Your task to perform on an android device: Open Maps and search for coffee Image 0: 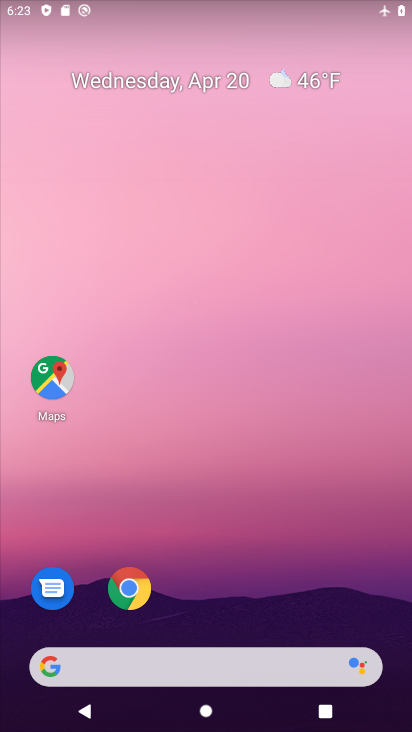
Step 0: drag from (316, 603) to (336, 729)
Your task to perform on an android device: Open Maps and search for coffee Image 1: 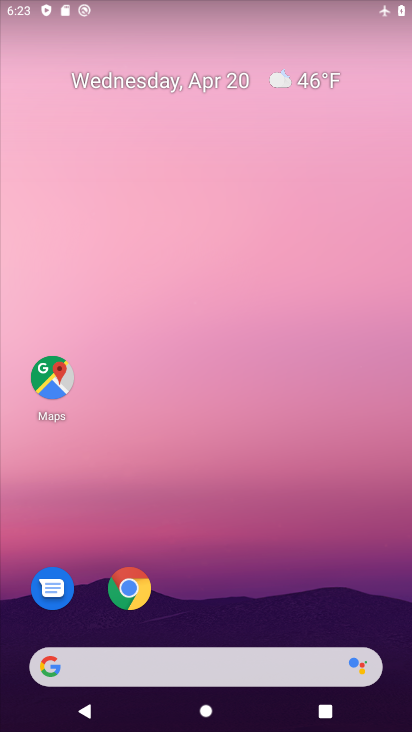
Step 1: click (31, 370)
Your task to perform on an android device: Open Maps and search for coffee Image 2: 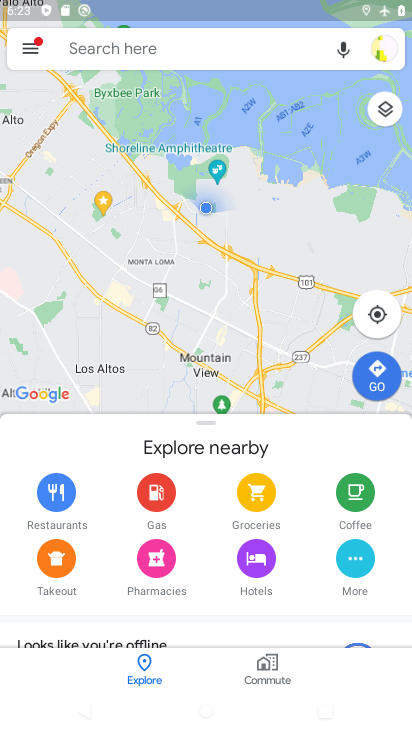
Step 2: drag from (388, 724) to (310, 718)
Your task to perform on an android device: Open Maps and search for coffee Image 3: 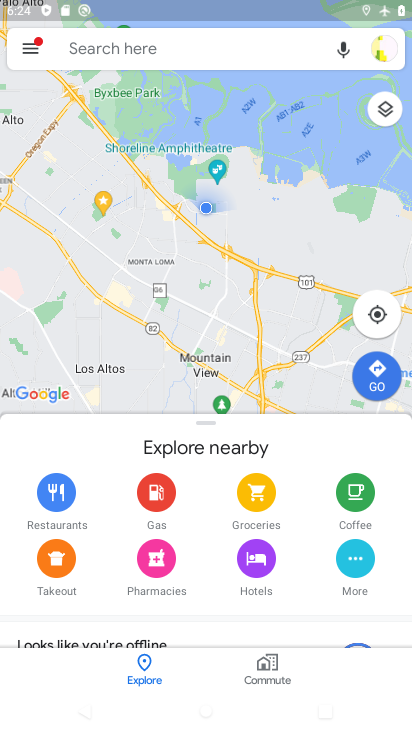
Step 3: type "coffee"
Your task to perform on an android device: Open Maps and search for coffee Image 4: 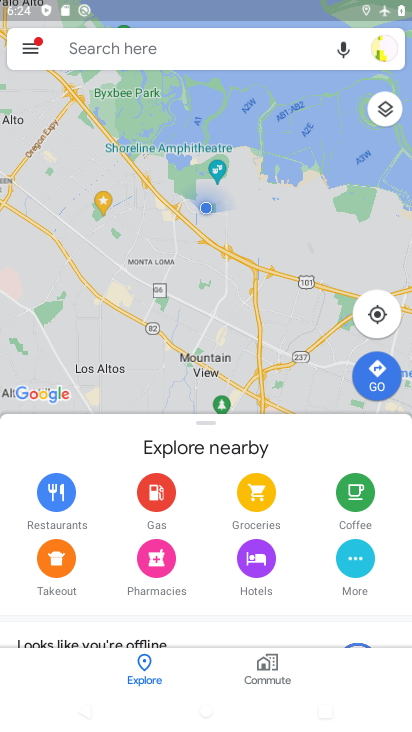
Step 4: click (160, 50)
Your task to perform on an android device: Open Maps and search for coffee Image 5: 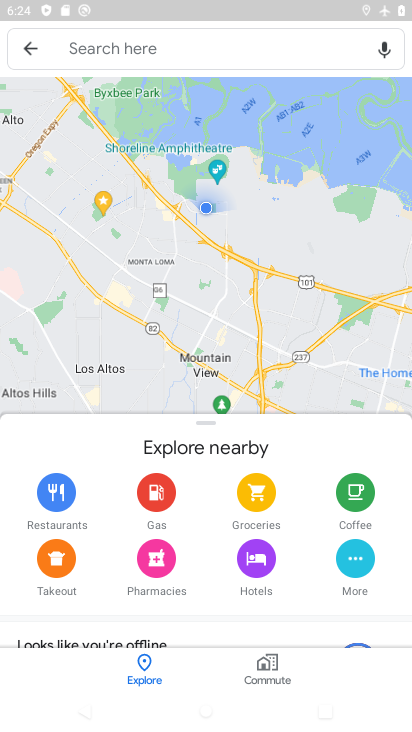
Step 5: click (160, 50)
Your task to perform on an android device: Open Maps and search for coffee Image 6: 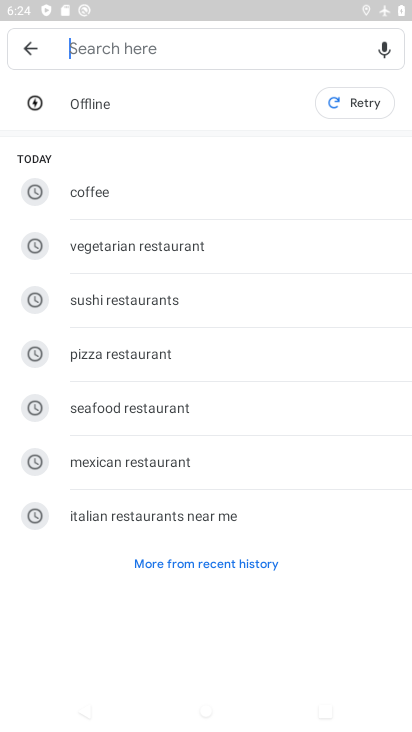
Step 6: click (160, 50)
Your task to perform on an android device: Open Maps and search for coffee Image 7: 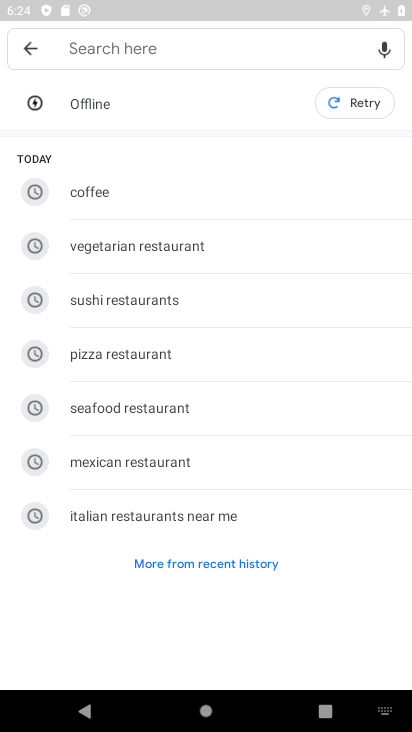
Step 7: click (160, 50)
Your task to perform on an android device: Open Maps and search for coffee Image 8: 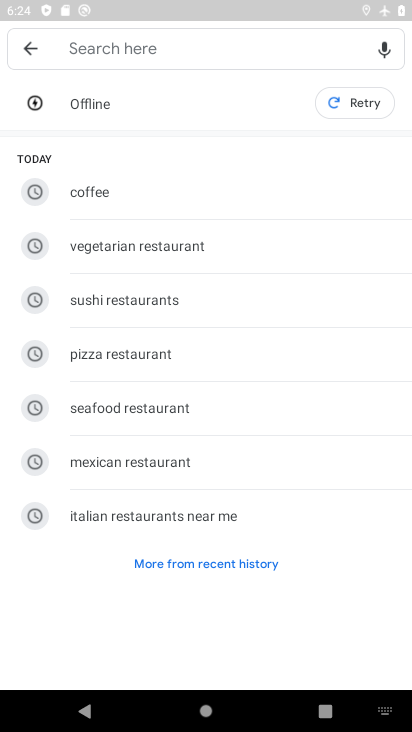
Step 8: click (160, 50)
Your task to perform on an android device: Open Maps and search for coffee Image 9: 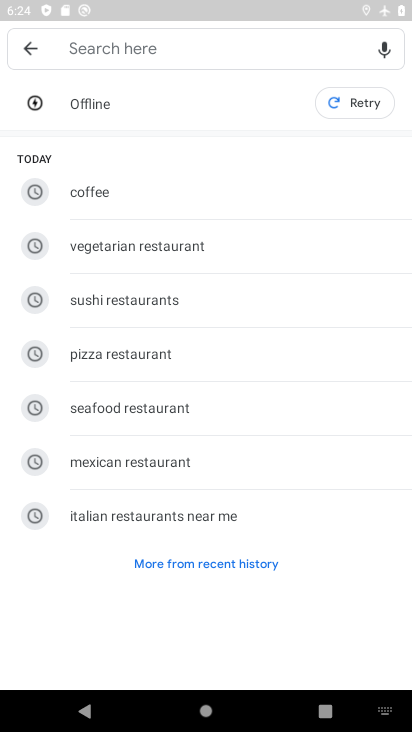
Step 9: type "coffee"
Your task to perform on an android device: Open Maps and search for coffee Image 10: 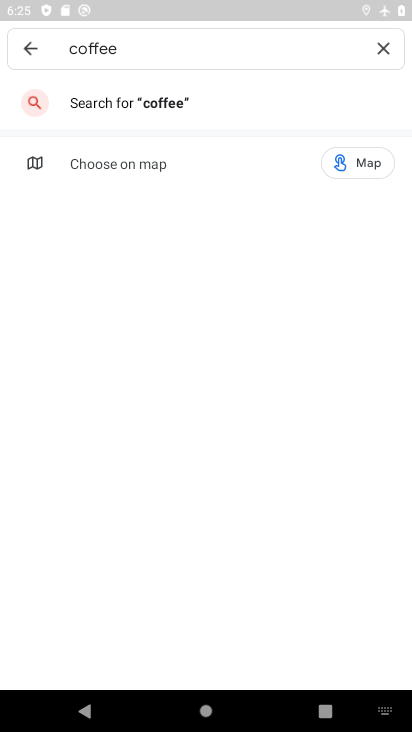
Step 10: click (117, 98)
Your task to perform on an android device: Open Maps and search for coffee Image 11: 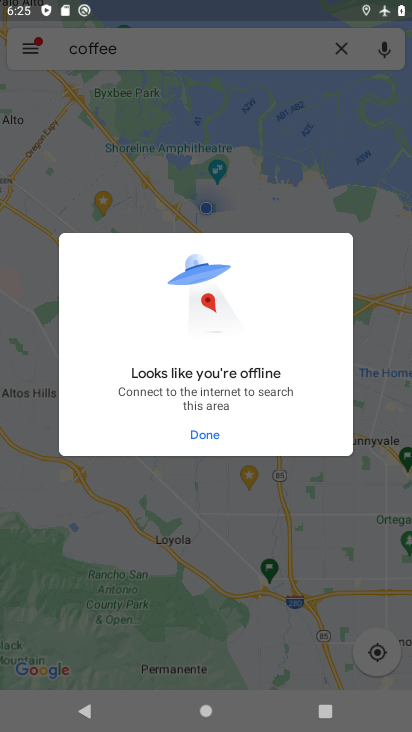
Step 11: click (208, 438)
Your task to perform on an android device: Open Maps and search for coffee Image 12: 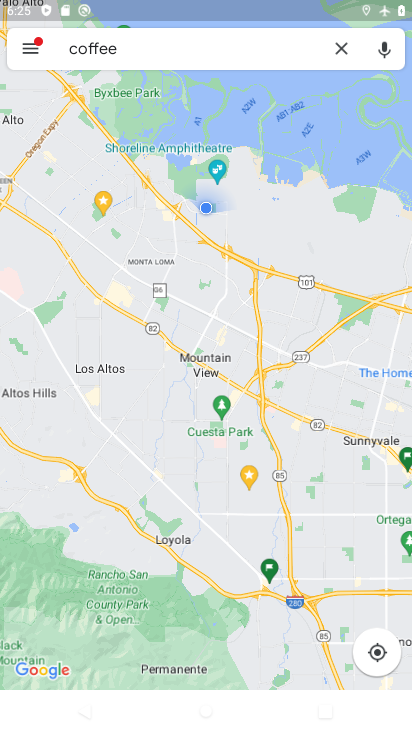
Step 12: task complete